Your task to perform on an android device: turn pop-ups on in chrome Image 0: 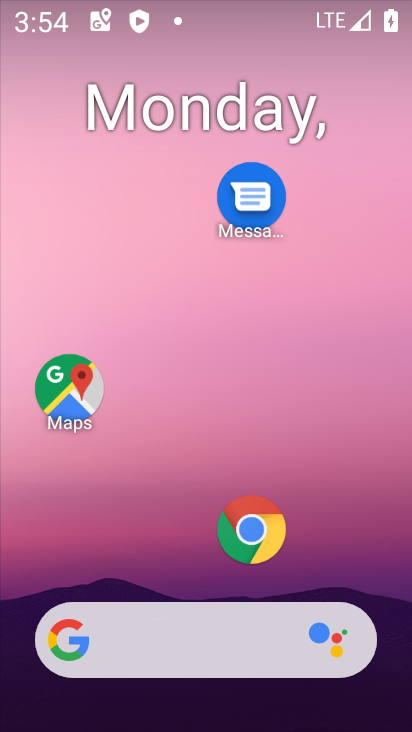
Step 0: click (250, 517)
Your task to perform on an android device: turn pop-ups on in chrome Image 1: 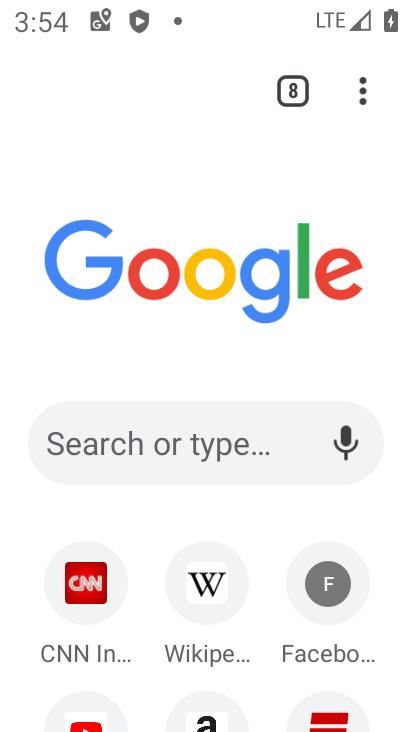
Step 1: drag from (359, 90) to (123, 554)
Your task to perform on an android device: turn pop-ups on in chrome Image 2: 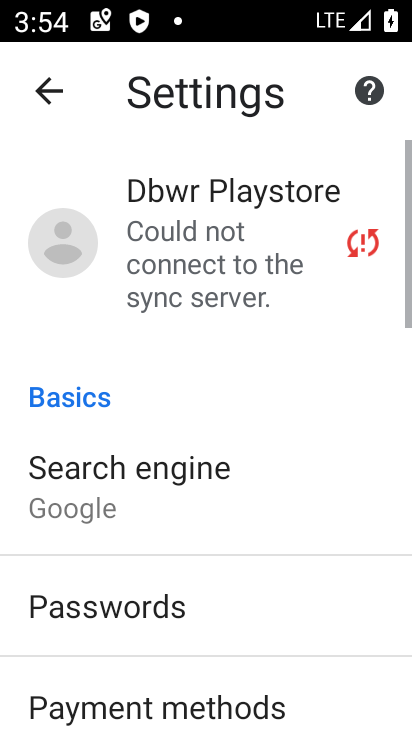
Step 2: drag from (149, 656) to (197, 127)
Your task to perform on an android device: turn pop-ups on in chrome Image 3: 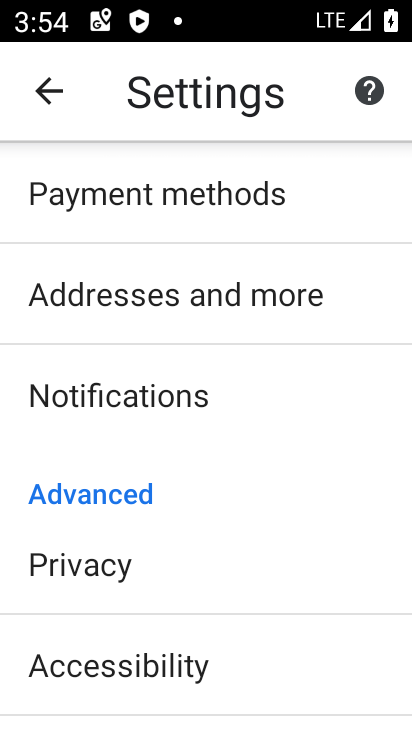
Step 3: drag from (168, 623) to (276, 190)
Your task to perform on an android device: turn pop-ups on in chrome Image 4: 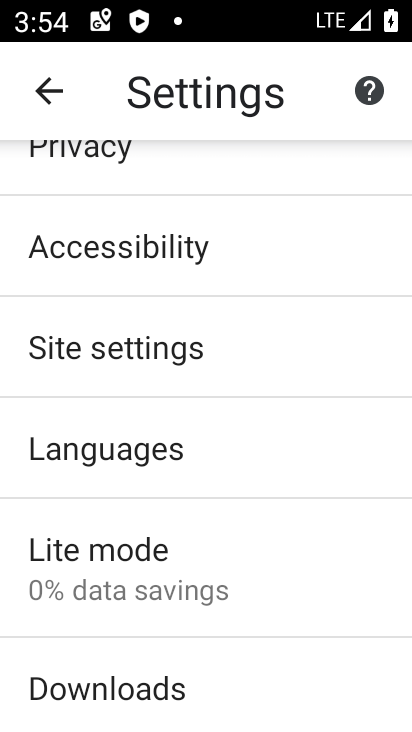
Step 4: click (142, 347)
Your task to perform on an android device: turn pop-ups on in chrome Image 5: 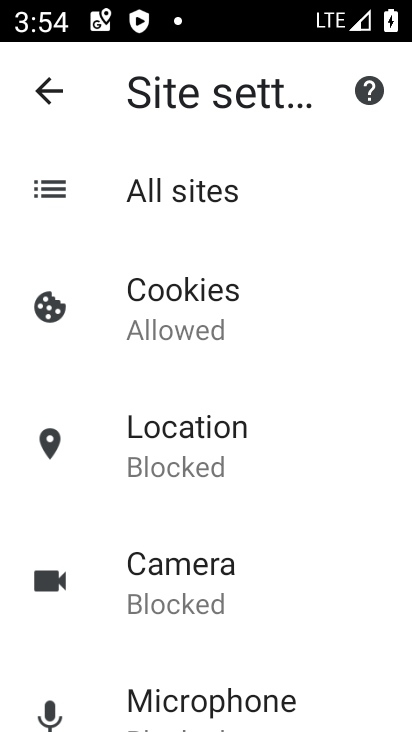
Step 5: drag from (234, 657) to (250, 168)
Your task to perform on an android device: turn pop-ups on in chrome Image 6: 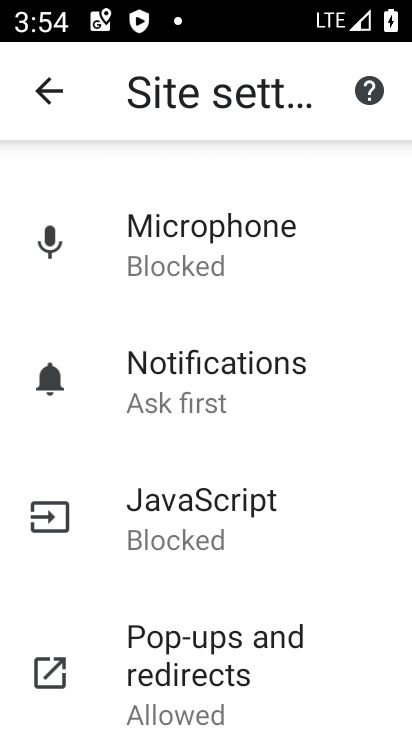
Step 6: click (164, 633)
Your task to perform on an android device: turn pop-ups on in chrome Image 7: 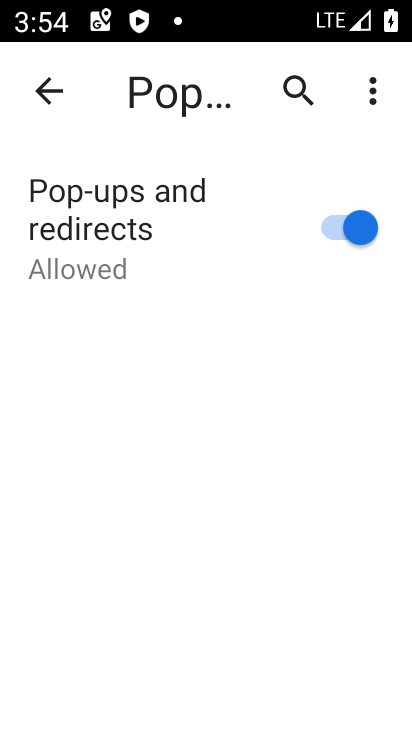
Step 7: task complete